Your task to perform on an android device: Open network settings Image 0: 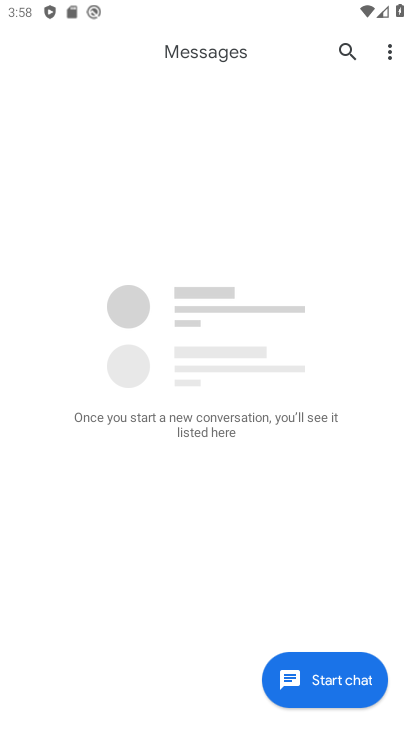
Step 0: press home button
Your task to perform on an android device: Open network settings Image 1: 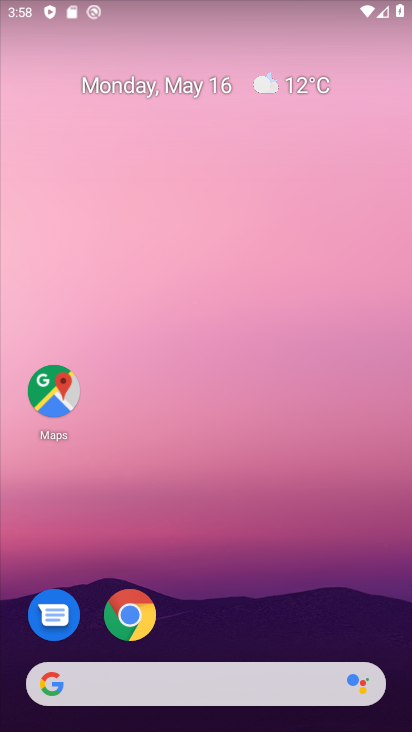
Step 1: drag from (208, 657) to (161, 4)
Your task to perform on an android device: Open network settings Image 2: 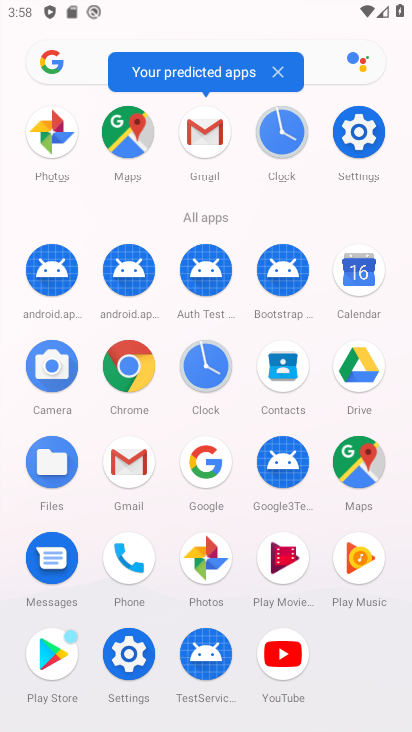
Step 2: click (355, 139)
Your task to perform on an android device: Open network settings Image 3: 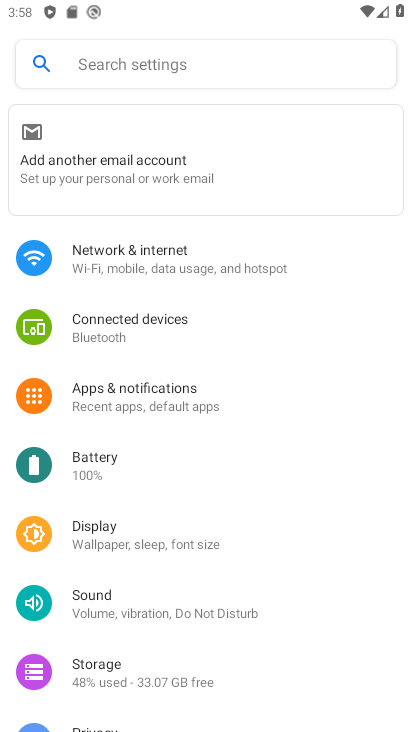
Step 3: click (160, 239)
Your task to perform on an android device: Open network settings Image 4: 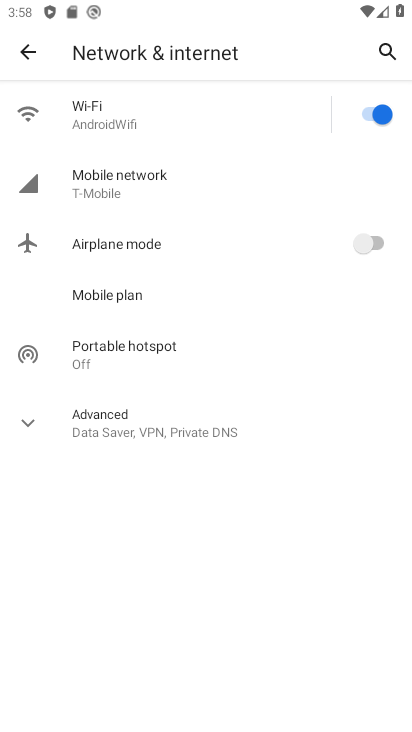
Step 4: click (98, 170)
Your task to perform on an android device: Open network settings Image 5: 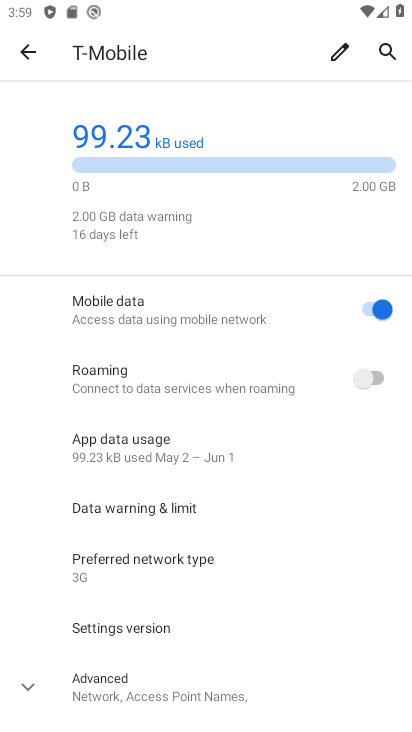
Step 5: task complete